Your task to perform on an android device: turn off priority inbox in the gmail app Image 0: 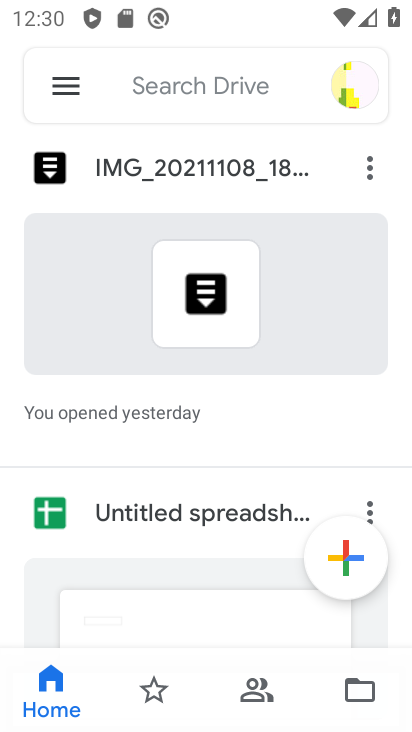
Step 0: press back button
Your task to perform on an android device: turn off priority inbox in the gmail app Image 1: 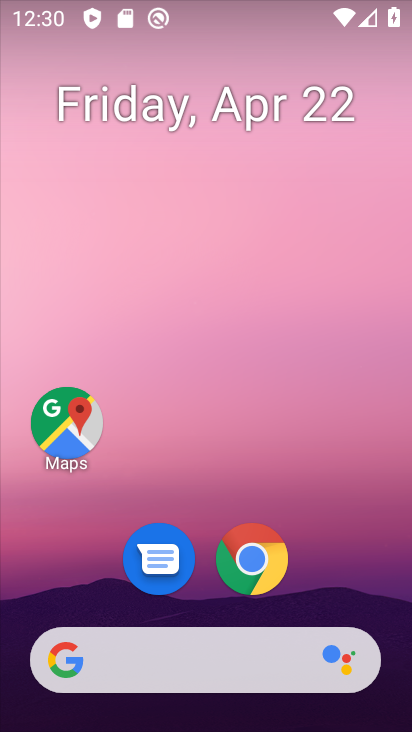
Step 1: drag from (352, 580) to (228, 60)
Your task to perform on an android device: turn off priority inbox in the gmail app Image 2: 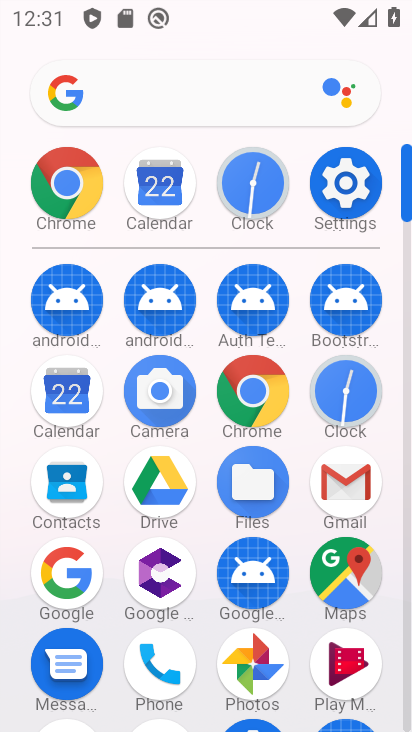
Step 2: click (351, 483)
Your task to perform on an android device: turn off priority inbox in the gmail app Image 3: 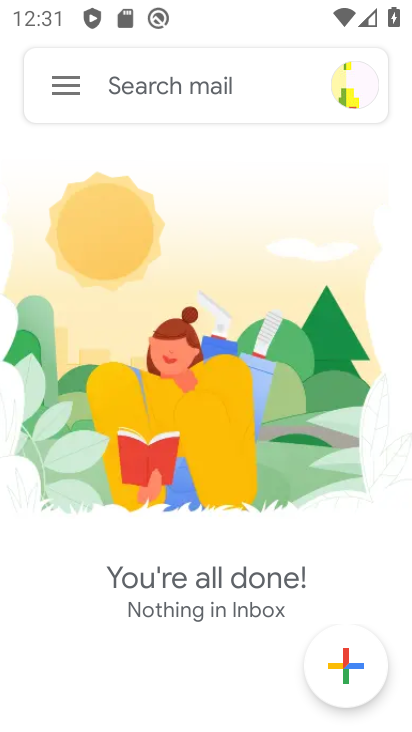
Step 3: click (57, 74)
Your task to perform on an android device: turn off priority inbox in the gmail app Image 4: 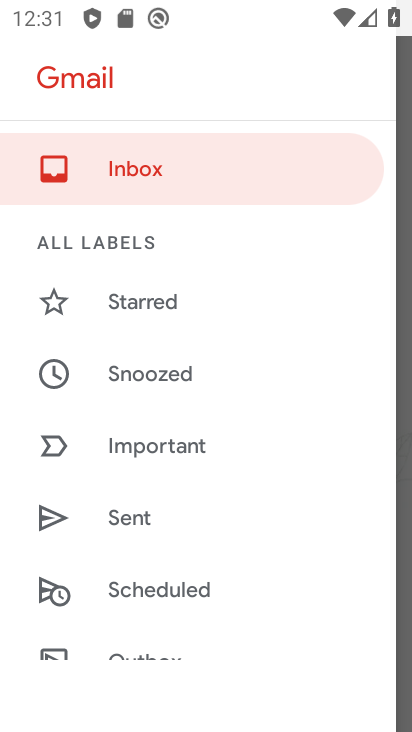
Step 4: drag from (207, 599) to (253, 137)
Your task to perform on an android device: turn off priority inbox in the gmail app Image 5: 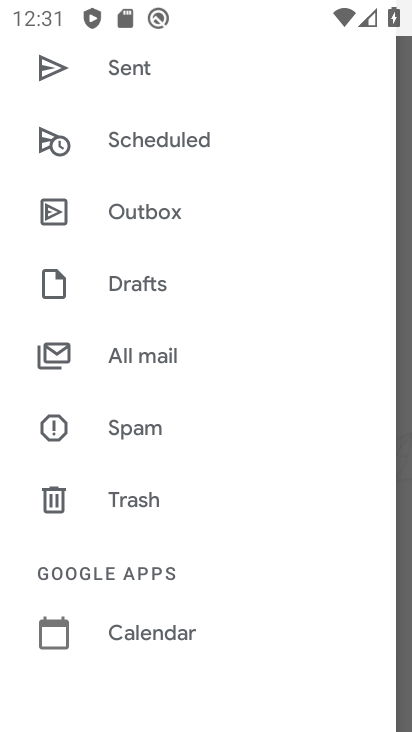
Step 5: drag from (164, 561) to (249, 90)
Your task to perform on an android device: turn off priority inbox in the gmail app Image 6: 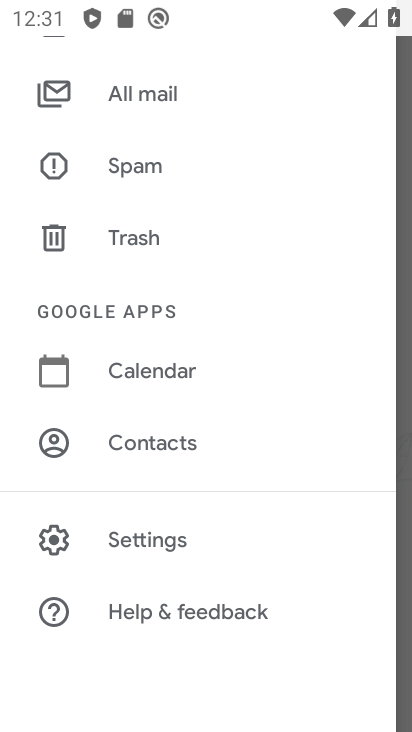
Step 6: click (229, 533)
Your task to perform on an android device: turn off priority inbox in the gmail app Image 7: 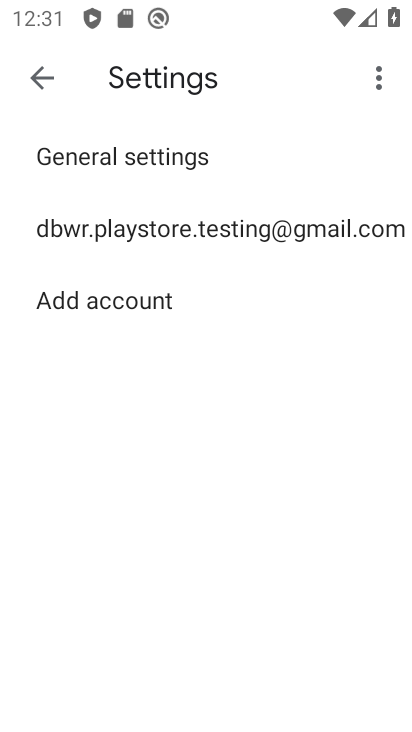
Step 7: click (244, 234)
Your task to perform on an android device: turn off priority inbox in the gmail app Image 8: 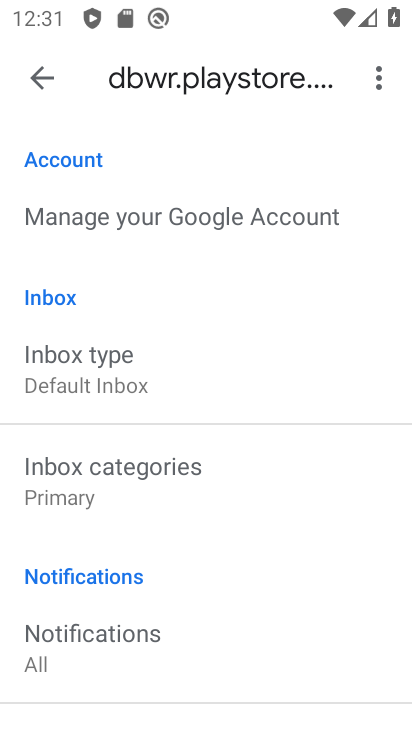
Step 8: drag from (149, 675) to (201, 513)
Your task to perform on an android device: turn off priority inbox in the gmail app Image 9: 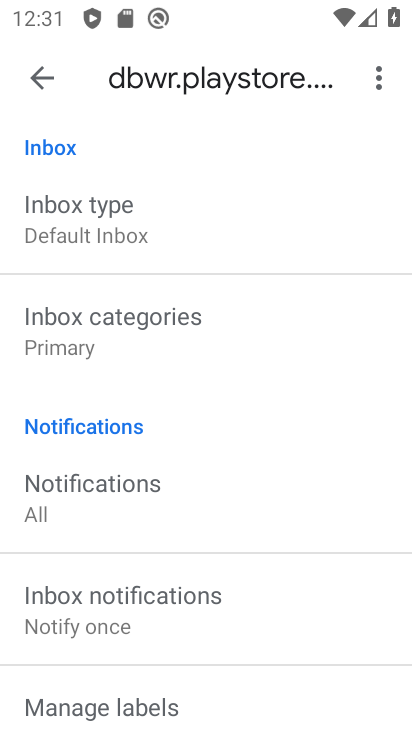
Step 9: click (151, 242)
Your task to perform on an android device: turn off priority inbox in the gmail app Image 10: 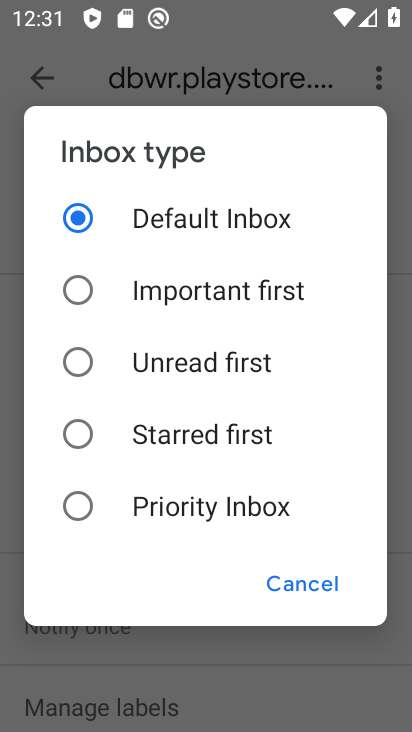
Step 10: task complete